Your task to perform on an android device: Go to Wikipedia Image 0: 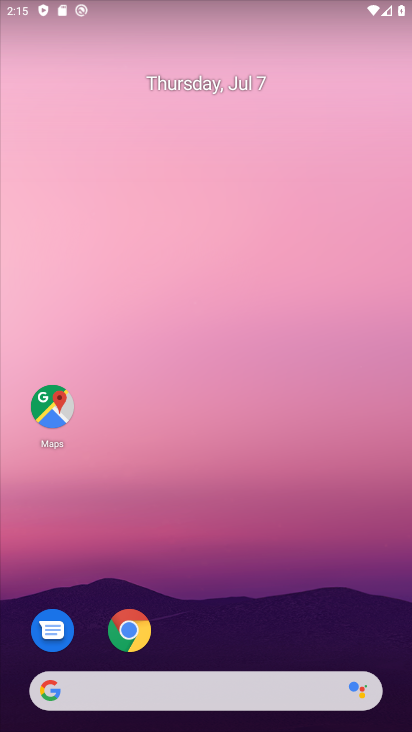
Step 0: drag from (225, 607) to (197, 165)
Your task to perform on an android device: Go to Wikipedia Image 1: 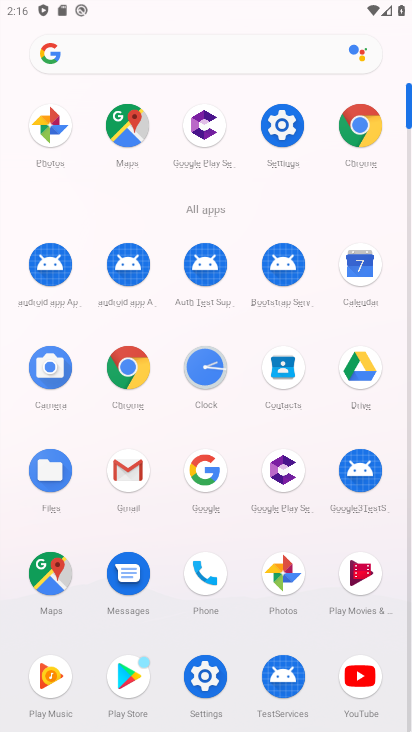
Step 1: click (131, 378)
Your task to perform on an android device: Go to Wikipedia Image 2: 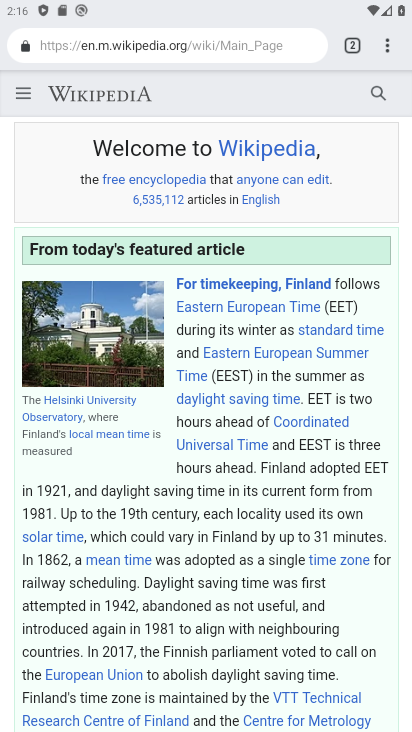
Step 2: task complete